Your task to perform on an android device: Open Yahoo.com Image 0: 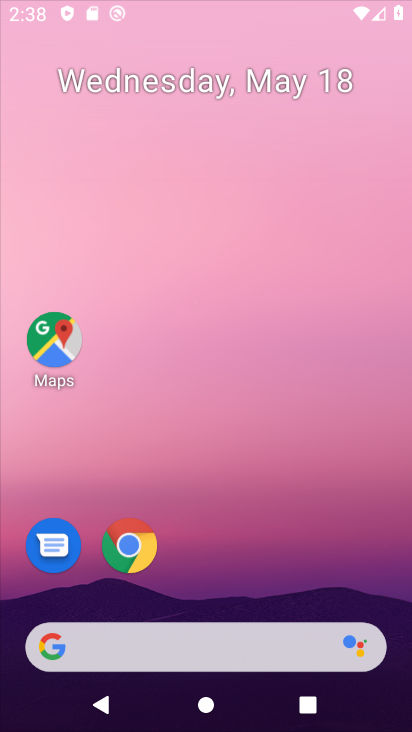
Step 0: click (230, 185)
Your task to perform on an android device: Open Yahoo.com Image 1: 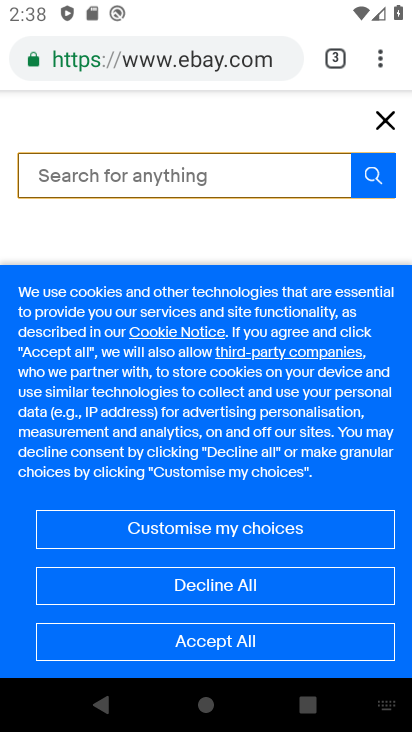
Step 1: click (380, 63)
Your task to perform on an android device: Open Yahoo.com Image 2: 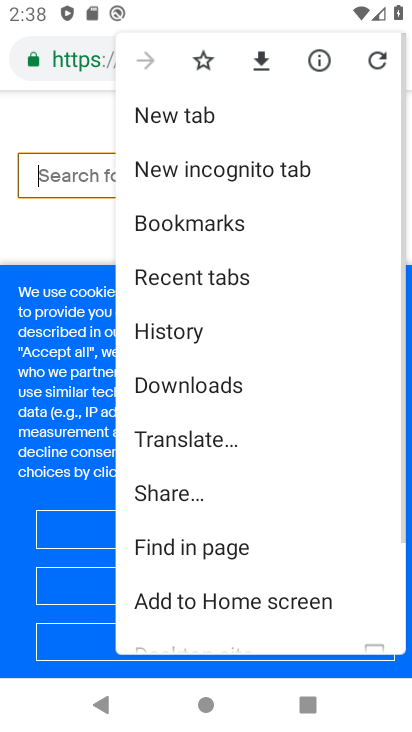
Step 2: click (177, 112)
Your task to perform on an android device: Open Yahoo.com Image 3: 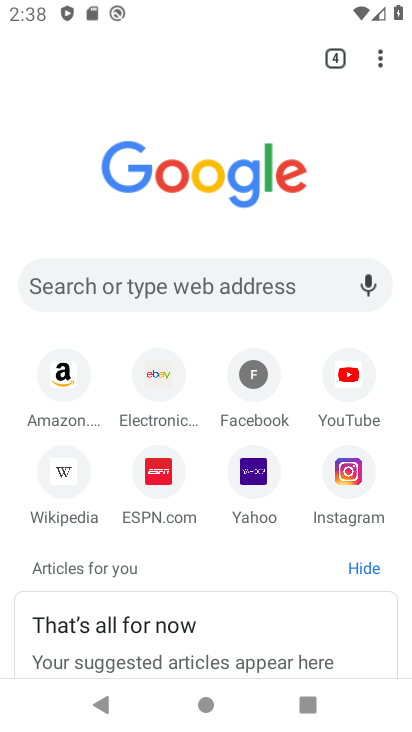
Step 3: click (242, 470)
Your task to perform on an android device: Open Yahoo.com Image 4: 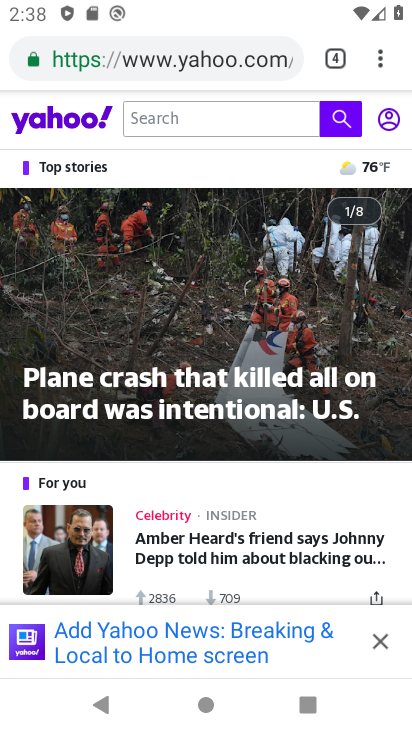
Step 4: task complete